Your task to perform on an android device: install app "Grab" Image 0: 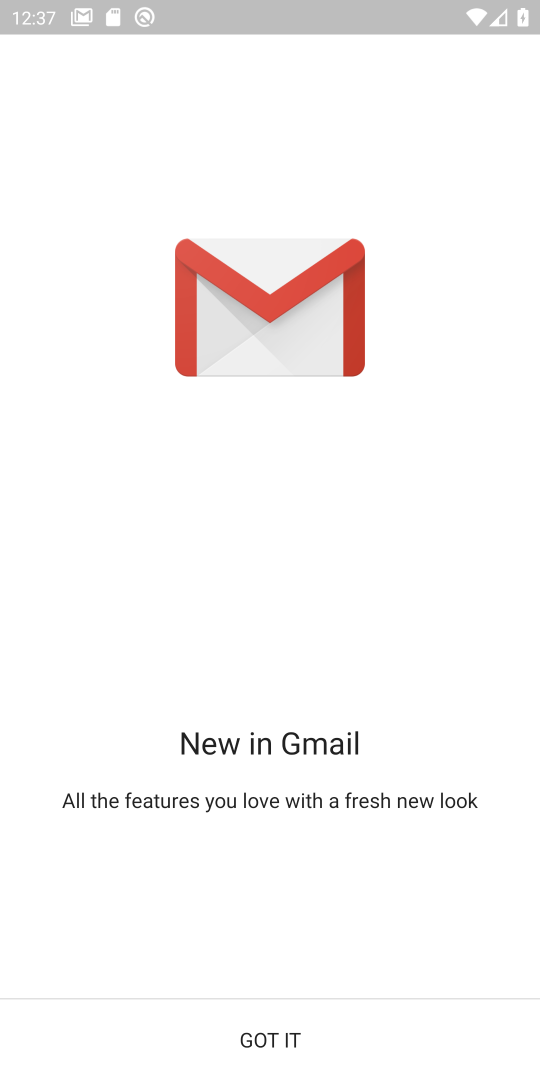
Step 0: press home button
Your task to perform on an android device: install app "Grab" Image 1: 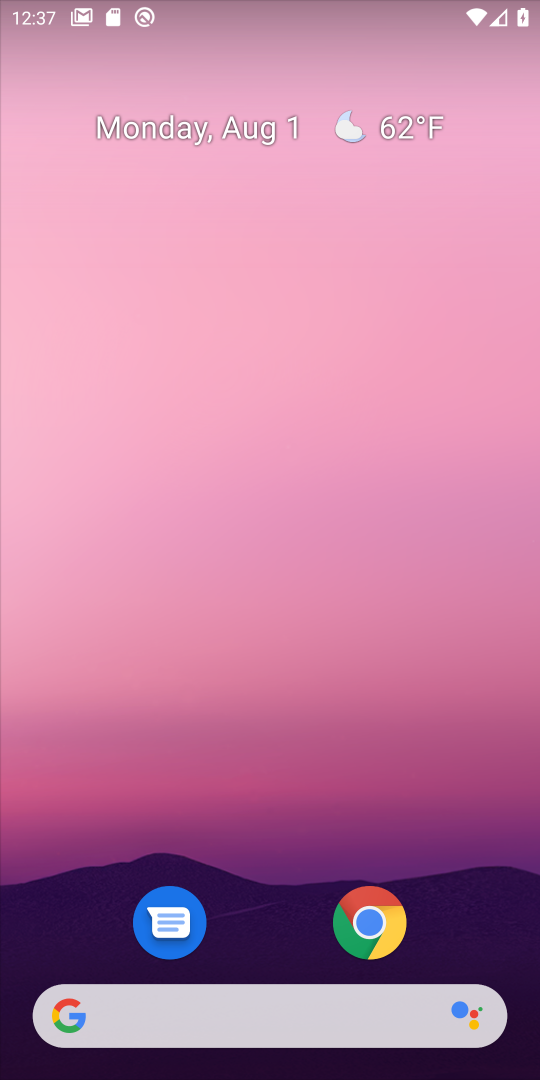
Step 1: drag from (203, 900) to (210, 401)
Your task to perform on an android device: install app "Grab" Image 2: 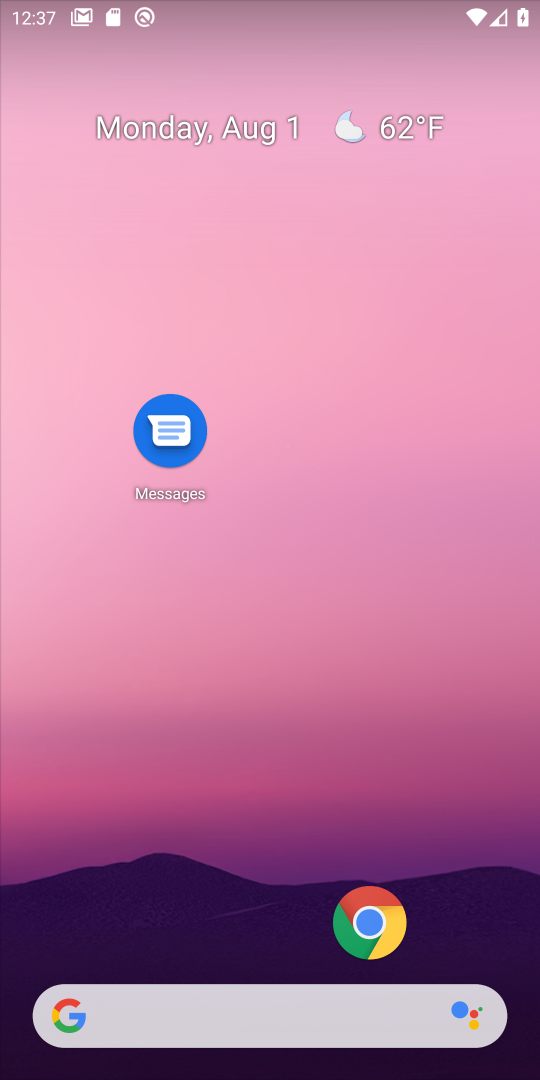
Step 2: drag from (266, 810) to (282, 361)
Your task to perform on an android device: install app "Grab" Image 3: 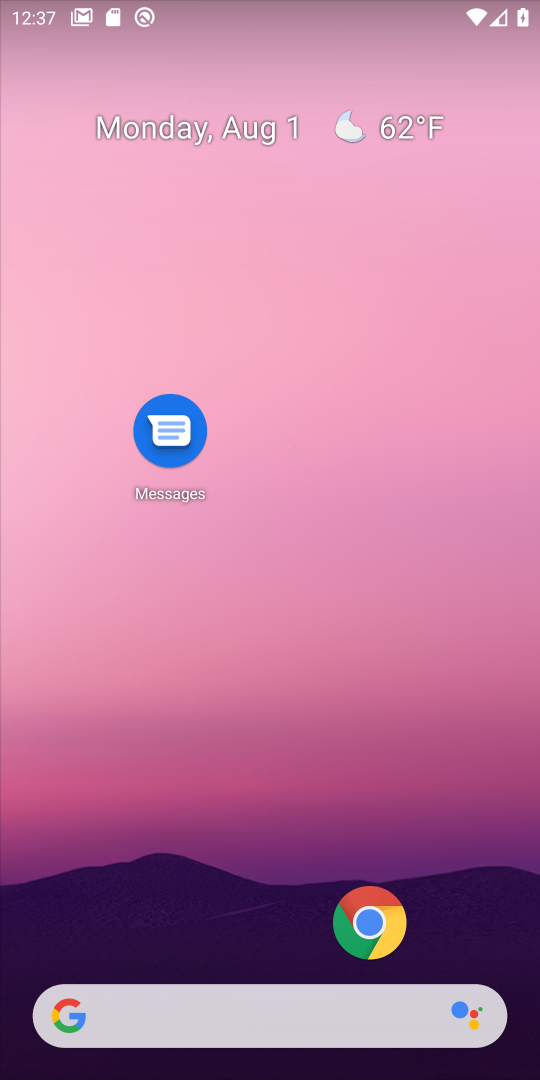
Step 3: drag from (269, 898) to (320, 163)
Your task to perform on an android device: install app "Grab" Image 4: 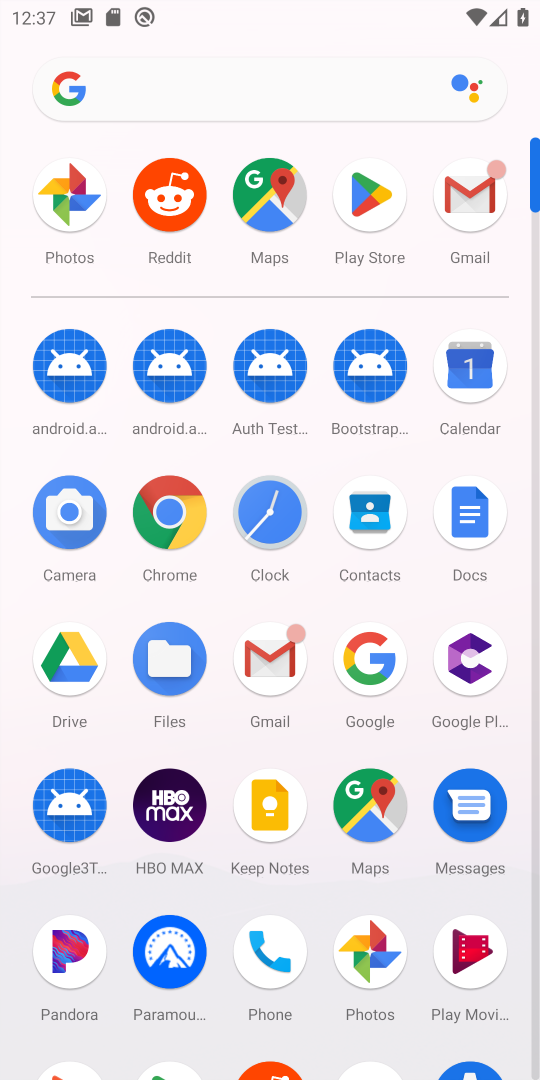
Step 4: click (374, 184)
Your task to perform on an android device: install app "Grab" Image 5: 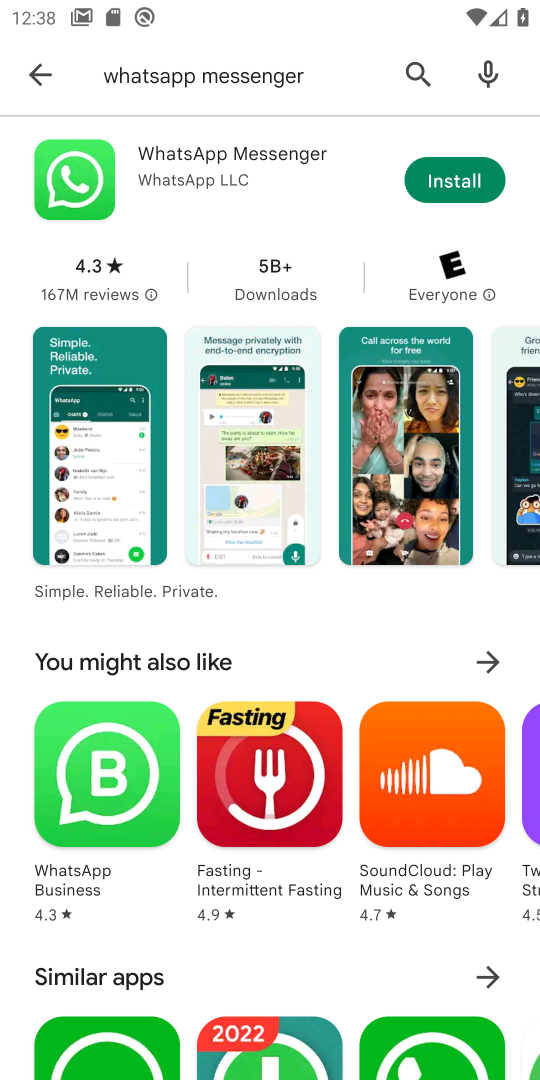
Step 5: click (405, 69)
Your task to perform on an android device: install app "Grab" Image 6: 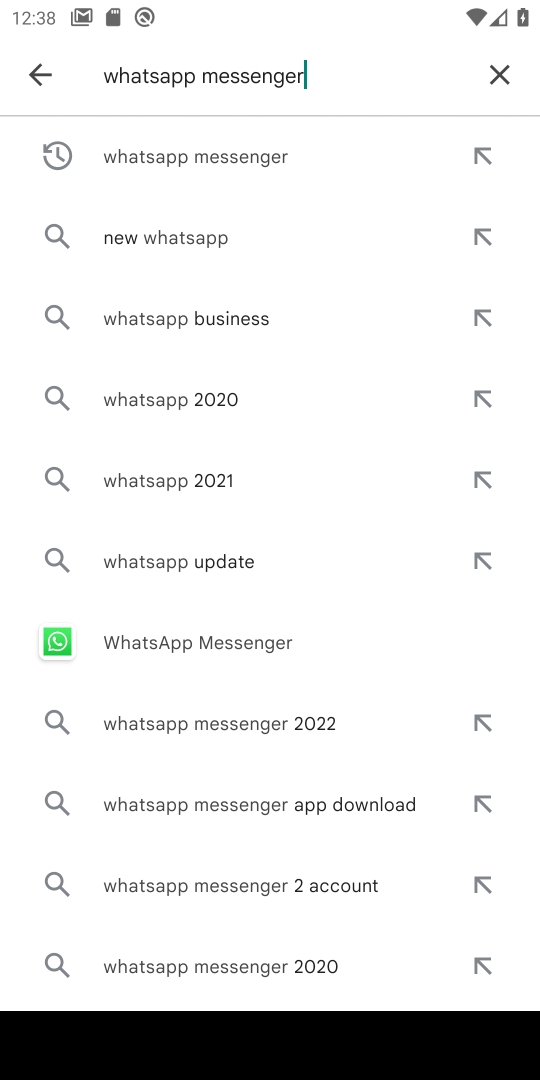
Step 6: click (487, 80)
Your task to perform on an android device: install app "Grab" Image 7: 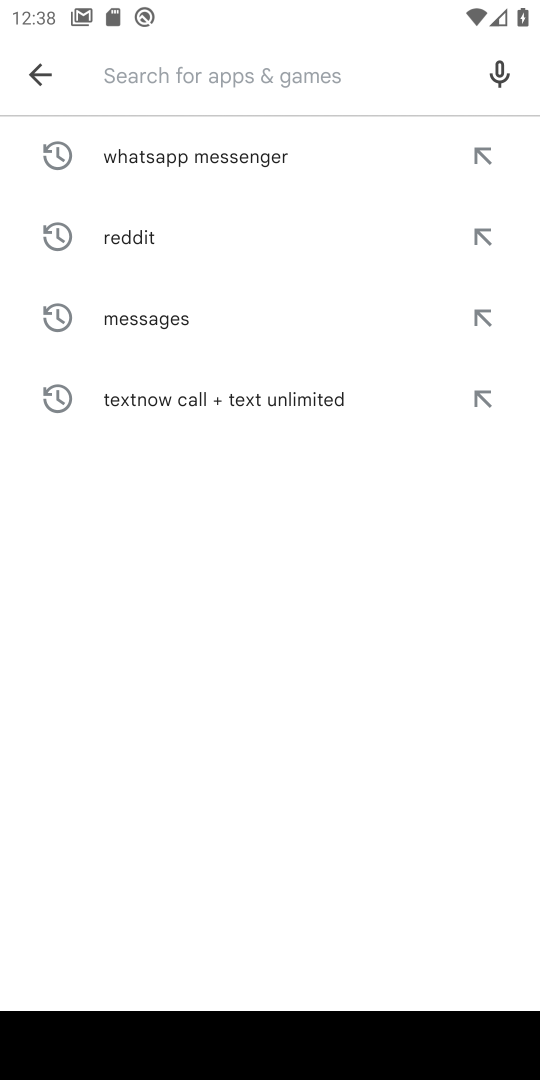
Step 7: type "Grab"
Your task to perform on an android device: install app "Grab" Image 8: 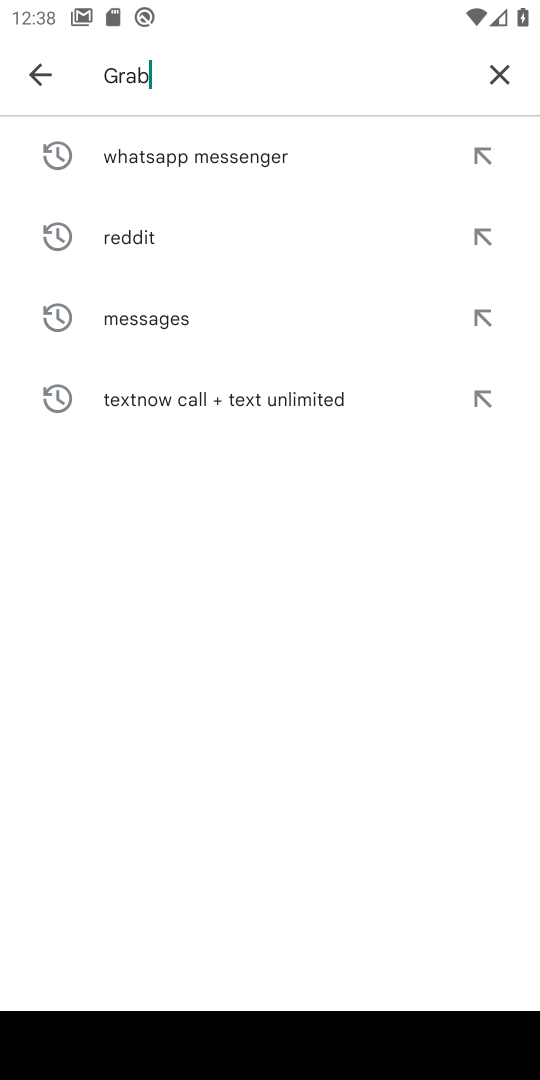
Step 8: type ""
Your task to perform on an android device: install app "Grab" Image 9: 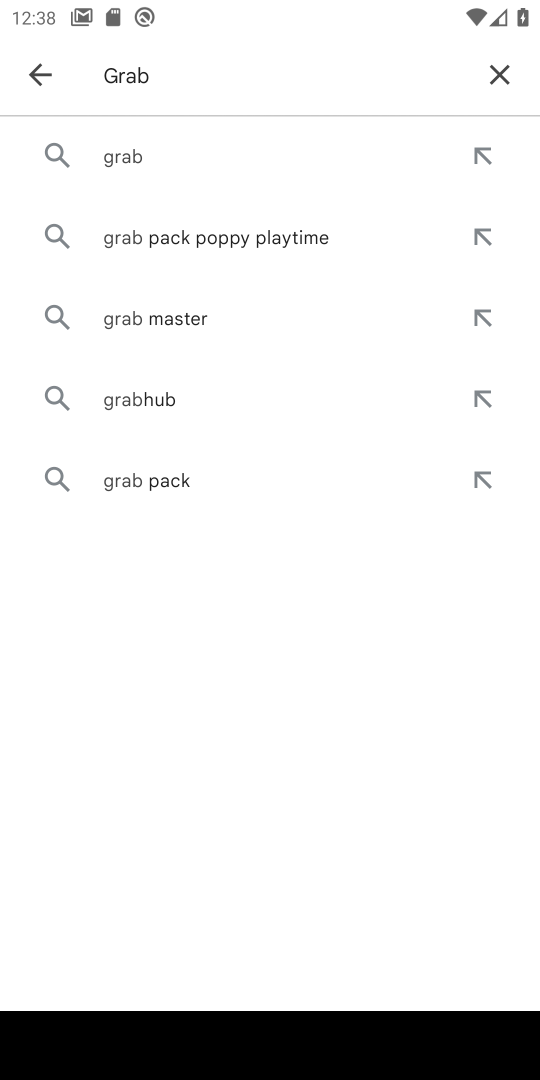
Step 9: click (91, 165)
Your task to perform on an android device: install app "Grab" Image 10: 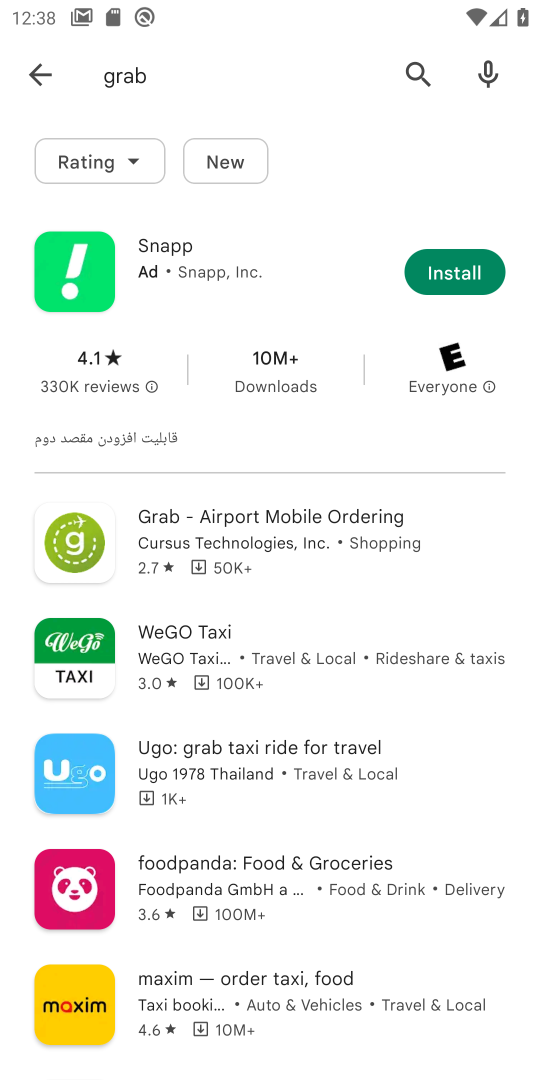
Step 10: click (263, 527)
Your task to perform on an android device: install app "Grab" Image 11: 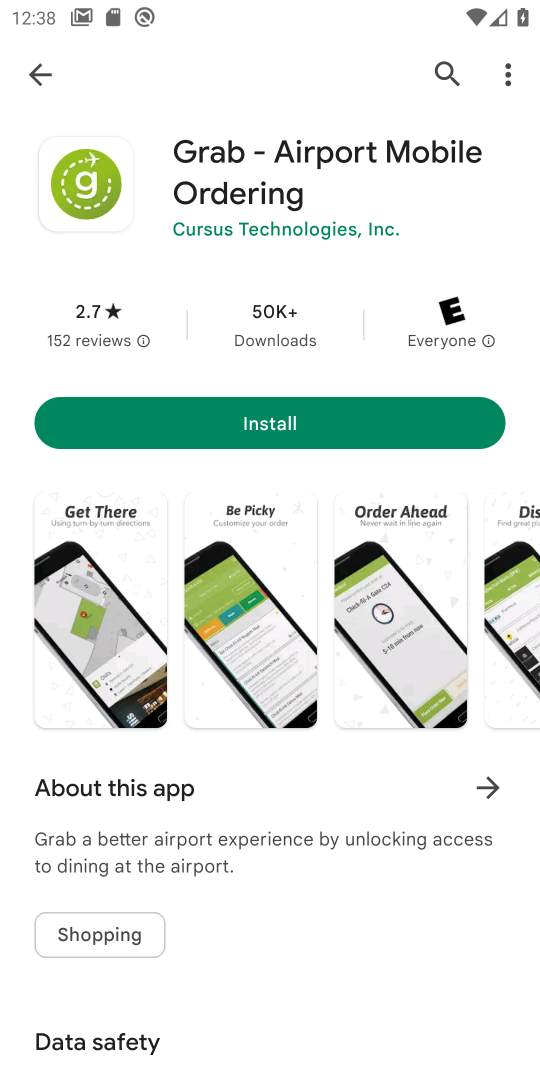
Step 11: click (213, 433)
Your task to perform on an android device: install app "Grab" Image 12: 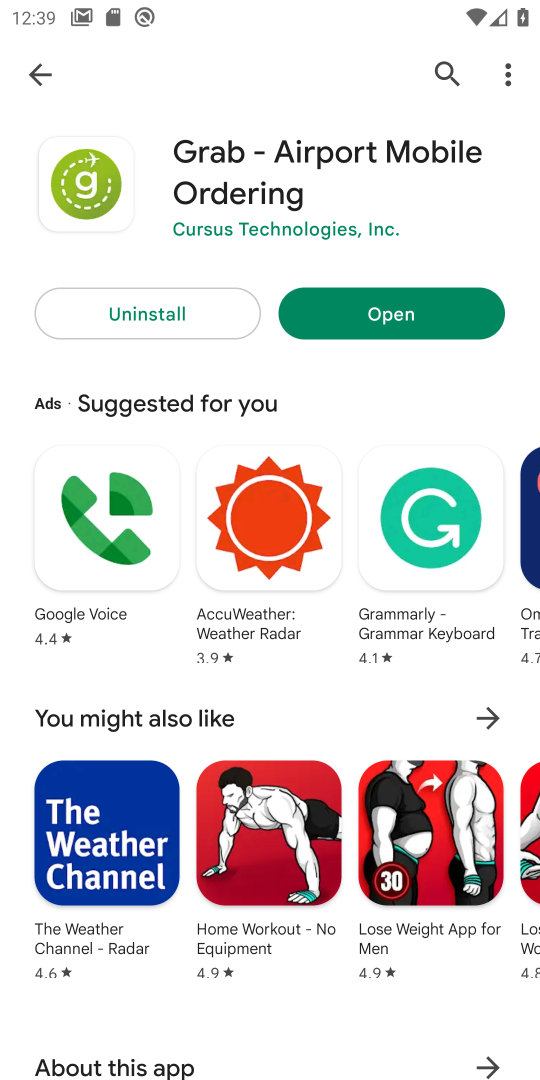
Step 12: task complete